Your task to perform on an android device: Search for vegetarian restaurants on Maps Image 0: 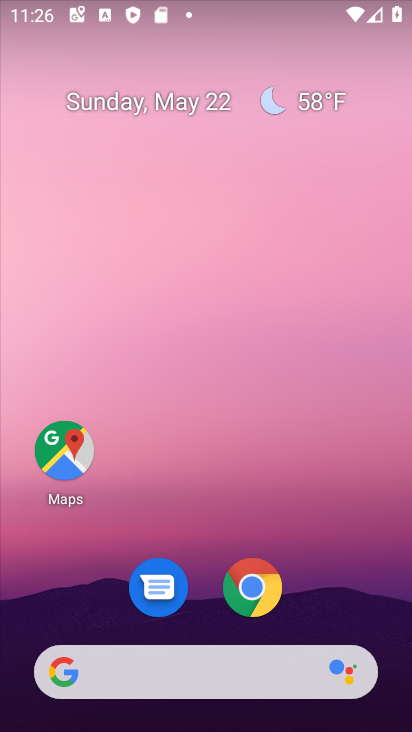
Step 0: click (77, 447)
Your task to perform on an android device: Search for vegetarian restaurants on Maps Image 1: 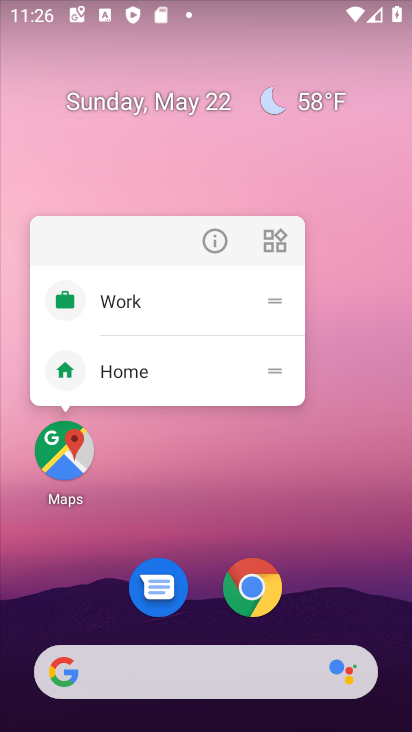
Step 1: click (77, 447)
Your task to perform on an android device: Search for vegetarian restaurants on Maps Image 2: 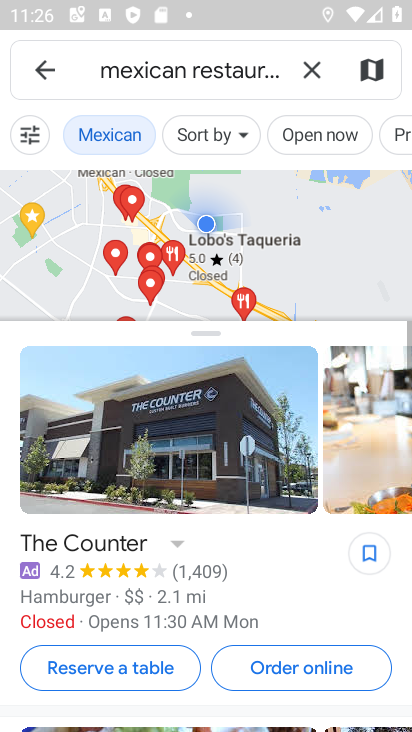
Step 2: click (309, 56)
Your task to perform on an android device: Search for vegetarian restaurants on Maps Image 3: 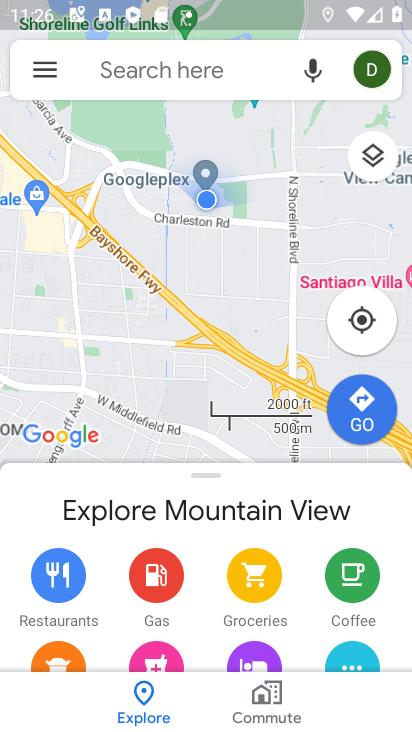
Step 3: click (194, 62)
Your task to perform on an android device: Search for vegetarian restaurants on Maps Image 4: 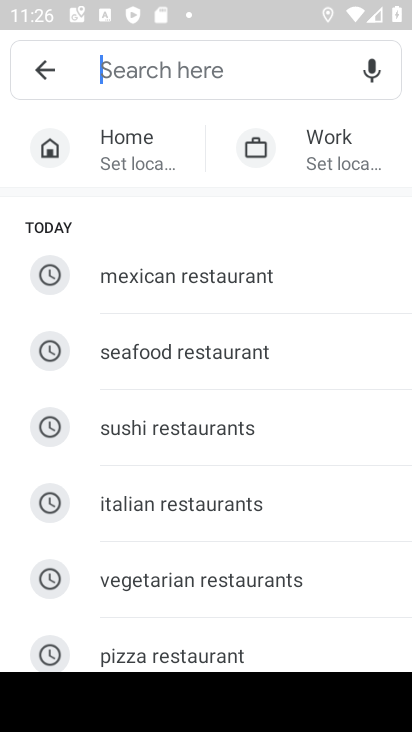
Step 4: click (222, 572)
Your task to perform on an android device: Search for vegetarian restaurants on Maps Image 5: 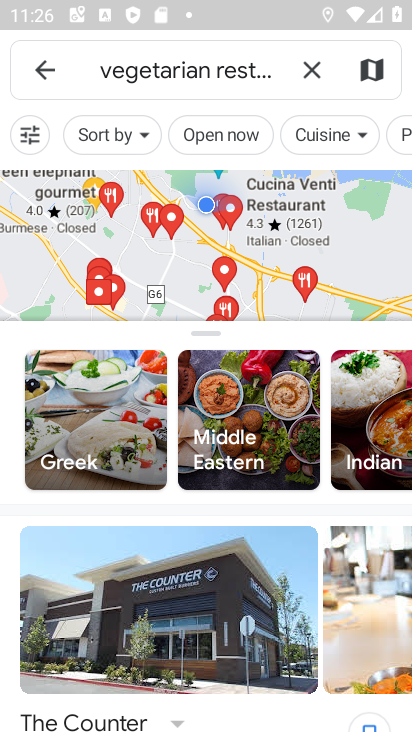
Step 5: task complete